Your task to perform on an android device: allow notifications from all sites in the chrome app Image 0: 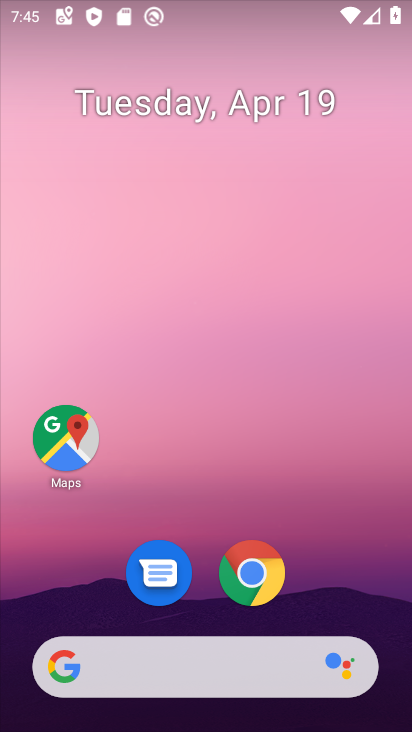
Step 0: drag from (264, 558) to (288, 197)
Your task to perform on an android device: allow notifications from all sites in the chrome app Image 1: 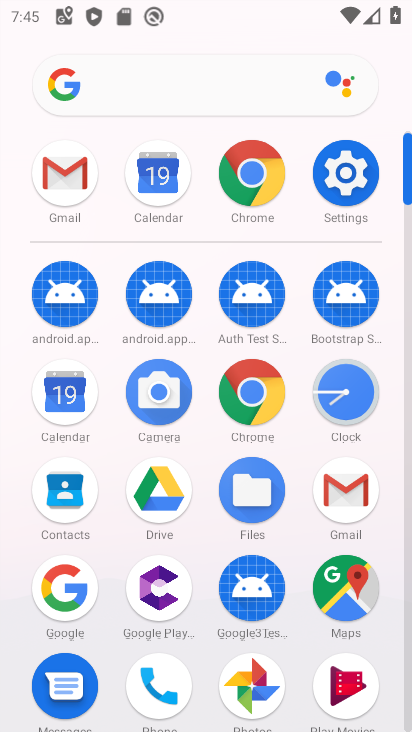
Step 1: click (244, 198)
Your task to perform on an android device: allow notifications from all sites in the chrome app Image 2: 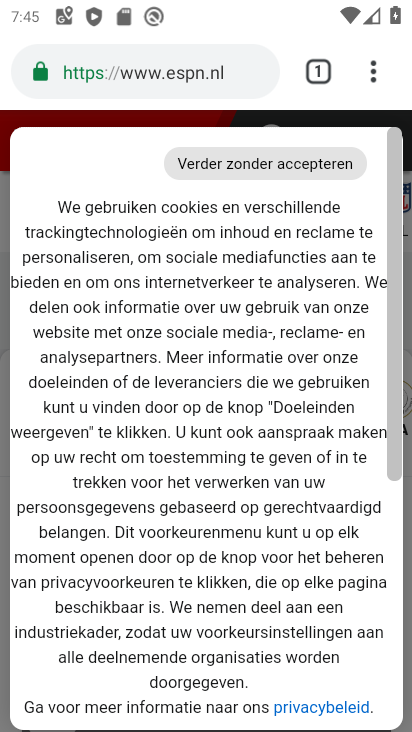
Step 2: click (372, 85)
Your task to perform on an android device: allow notifications from all sites in the chrome app Image 3: 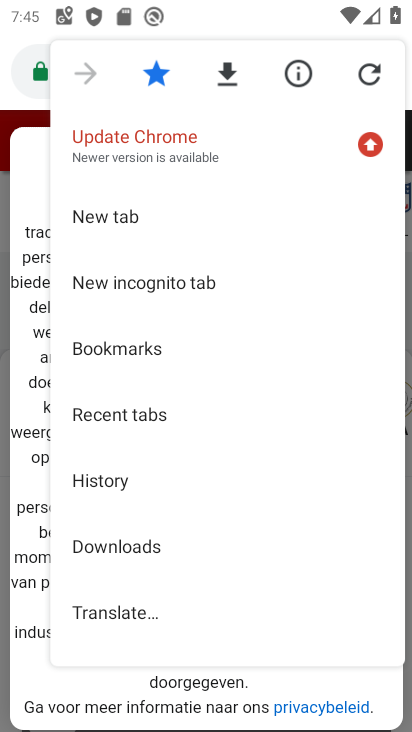
Step 3: drag from (214, 588) to (229, 350)
Your task to perform on an android device: allow notifications from all sites in the chrome app Image 4: 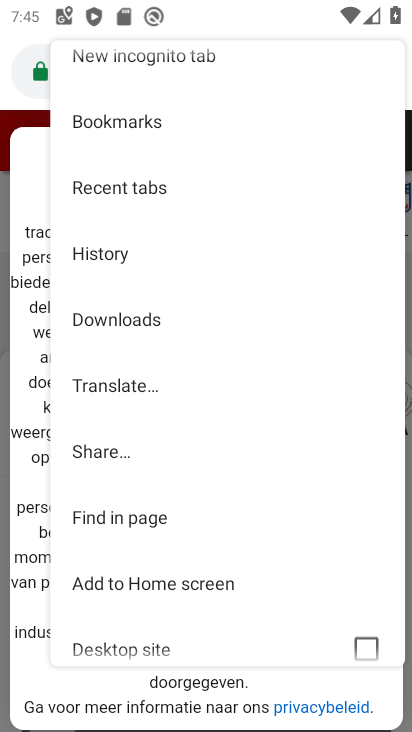
Step 4: drag from (138, 611) to (228, 405)
Your task to perform on an android device: allow notifications from all sites in the chrome app Image 5: 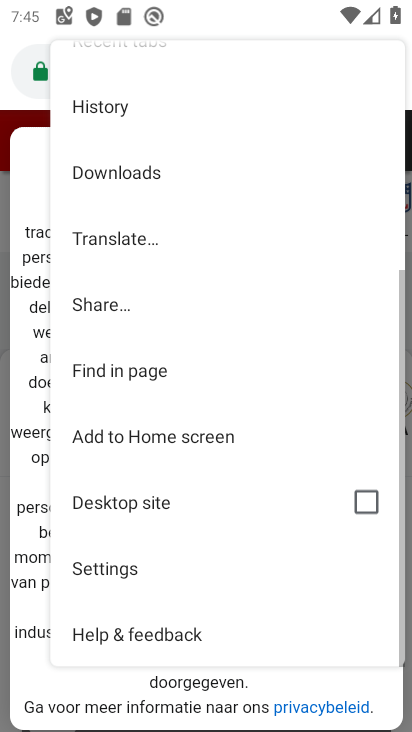
Step 5: click (126, 572)
Your task to perform on an android device: allow notifications from all sites in the chrome app Image 6: 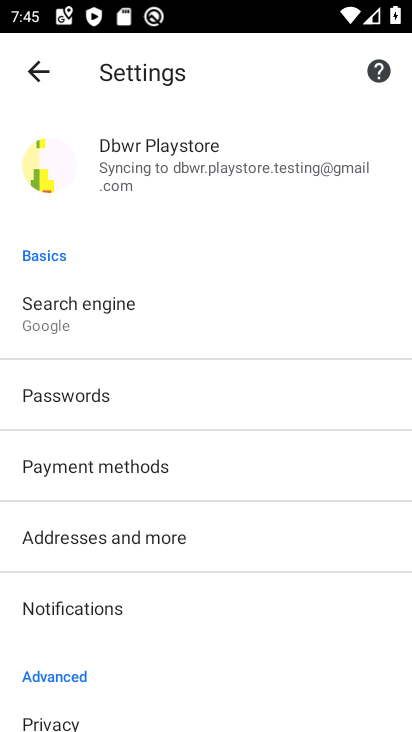
Step 6: drag from (136, 553) to (209, 382)
Your task to perform on an android device: allow notifications from all sites in the chrome app Image 7: 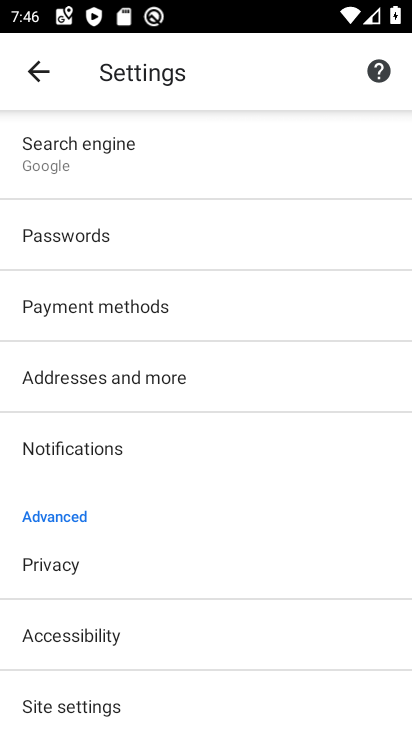
Step 7: click (87, 702)
Your task to perform on an android device: allow notifications from all sites in the chrome app Image 8: 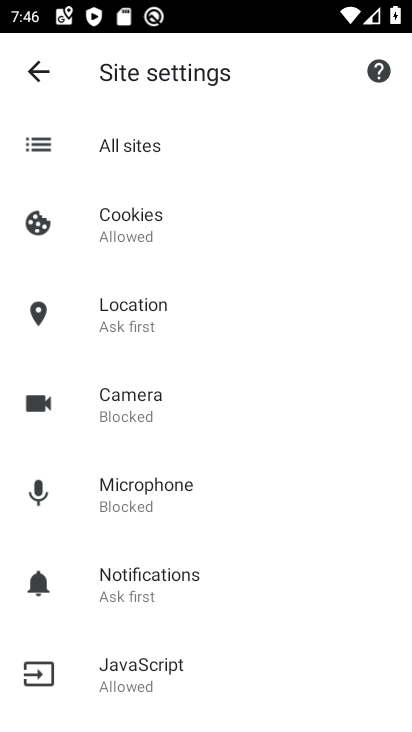
Step 8: drag from (122, 665) to (164, 586)
Your task to perform on an android device: allow notifications from all sites in the chrome app Image 9: 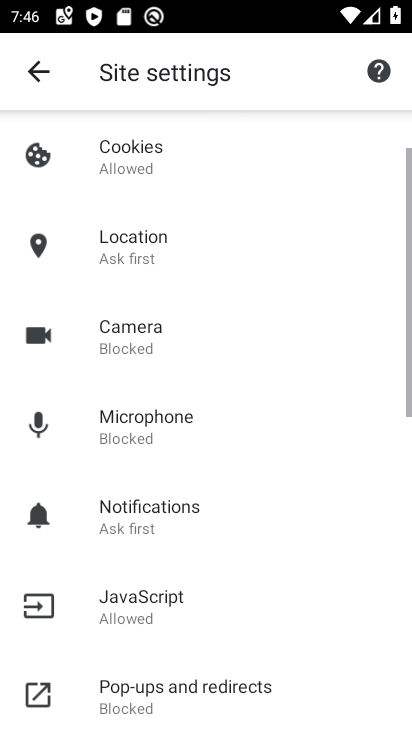
Step 9: click (134, 530)
Your task to perform on an android device: allow notifications from all sites in the chrome app Image 10: 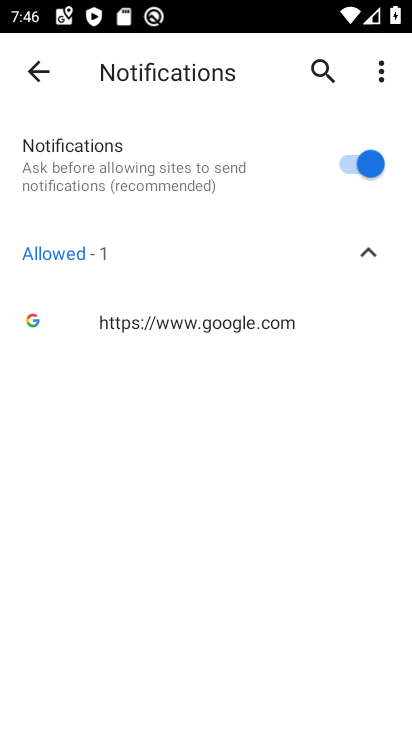
Step 10: click (310, 159)
Your task to perform on an android device: allow notifications from all sites in the chrome app Image 11: 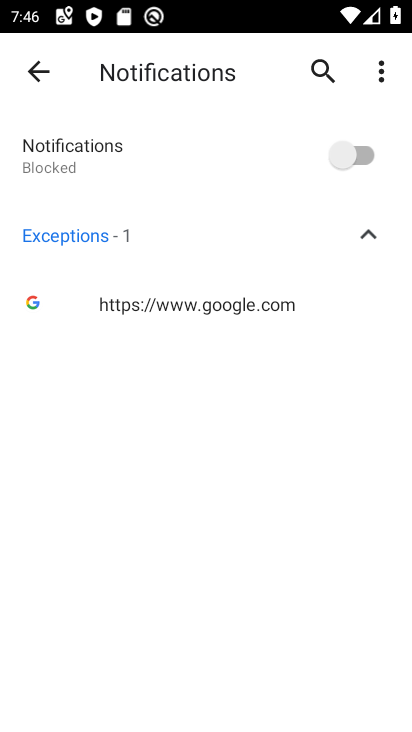
Step 11: click (322, 171)
Your task to perform on an android device: allow notifications from all sites in the chrome app Image 12: 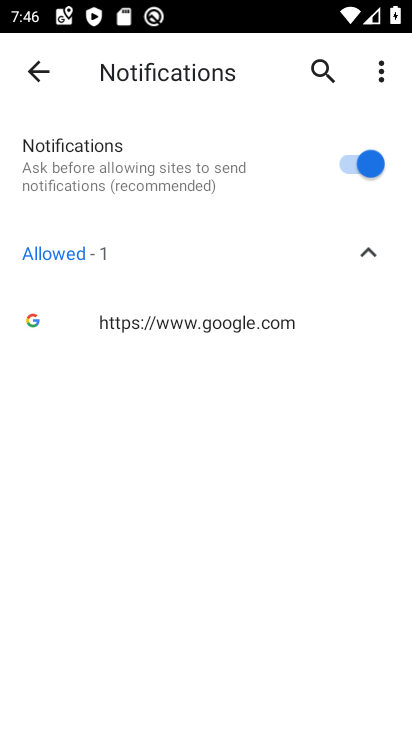
Step 12: task complete